Your task to perform on an android device: Open accessibility settings Image 0: 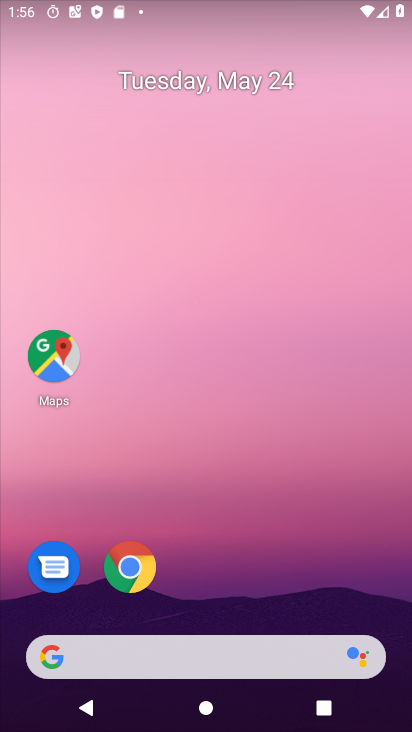
Step 0: drag from (207, 595) to (261, 9)
Your task to perform on an android device: Open accessibility settings Image 1: 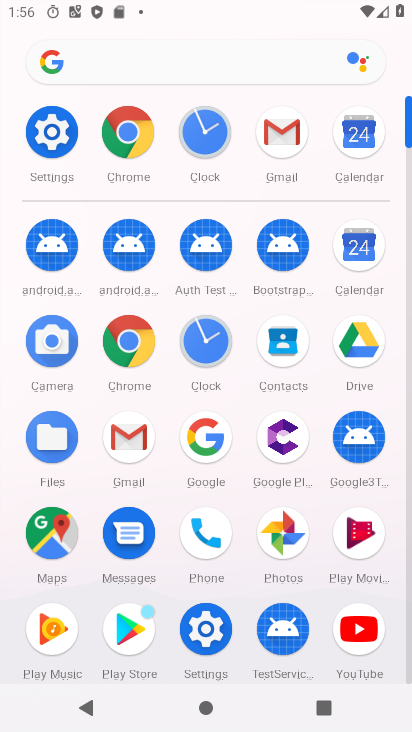
Step 1: click (54, 148)
Your task to perform on an android device: Open accessibility settings Image 2: 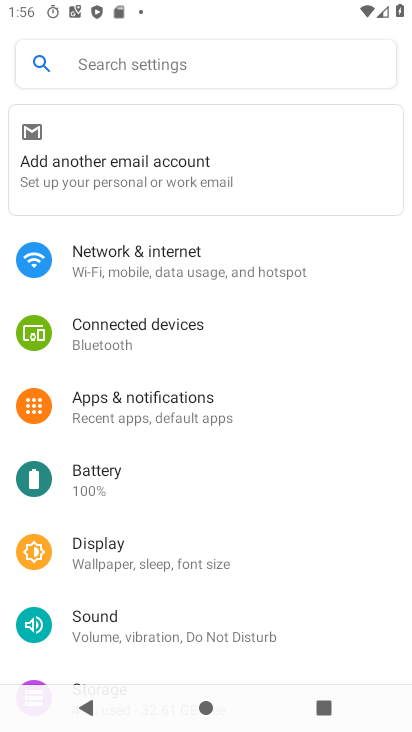
Step 2: drag from (149, 528) to (226, 140)
Your task to perform on an android device: Open accessibility settings Image 3: 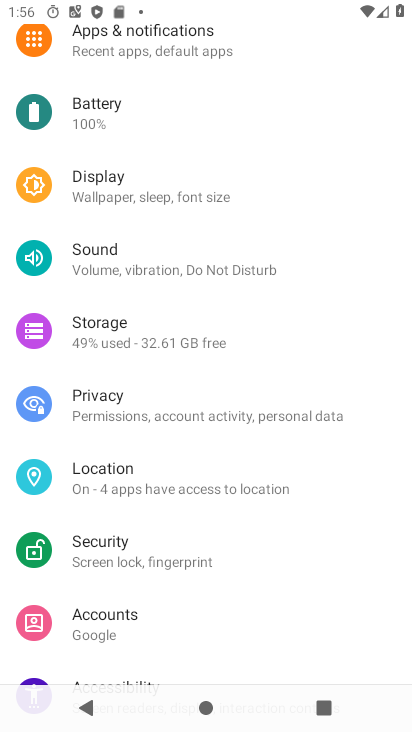
Step 3: drag from (137, 566) to (251, 138)
Your task to perform on an android device: Open accessibility settings Image 4: 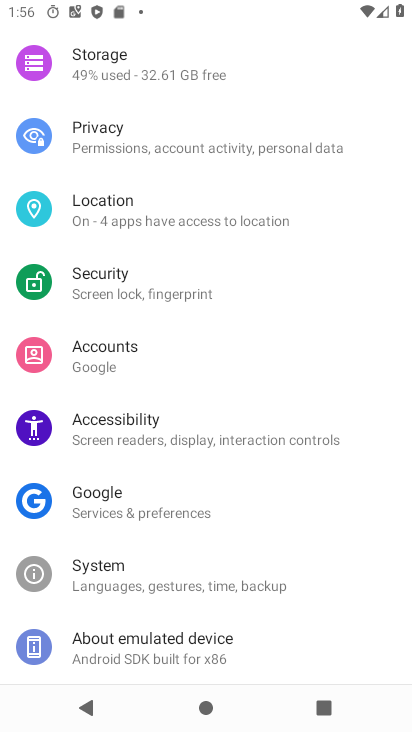
Step 4: click (184, 439)
Your task to perform on an android device: Open accessibility settings Image 5: 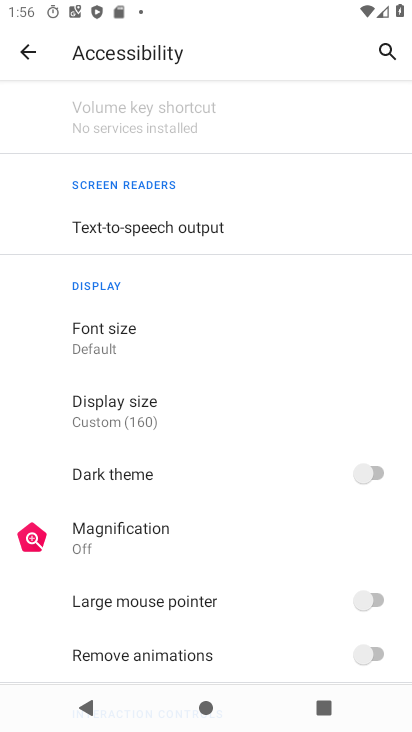
Step 5: task complete